Your task to perform on an android device: turn pop-ups off in chrome Image 0: 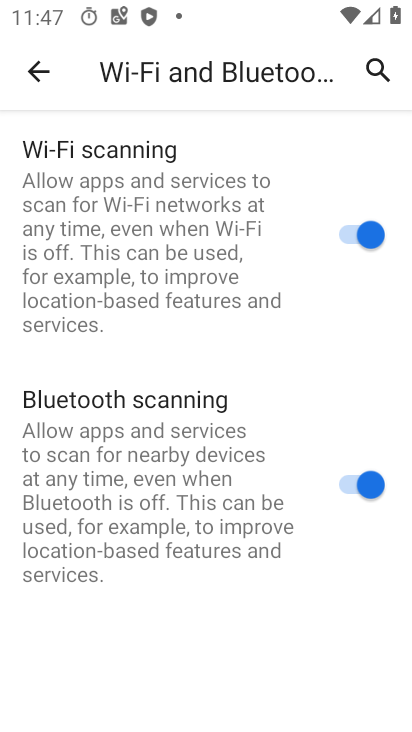
Step 0: press home button
Your task to perform on an android device: turn pop-ups off in chrome Image 1: 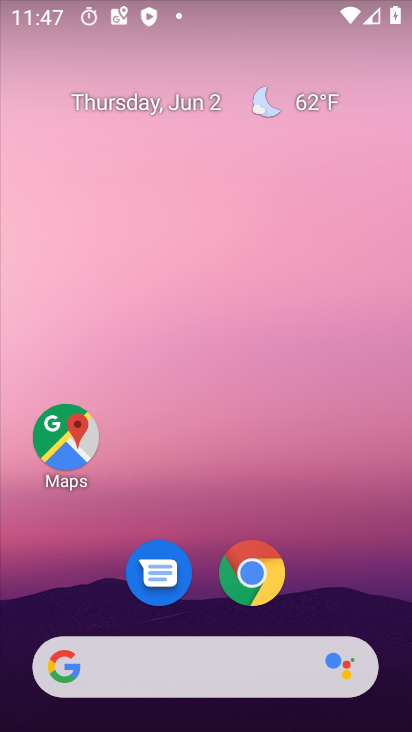
Step 1: drag from (235, 38) to (285, 3)
Your task to perform on an android device: turn pop-ups off in chrome Image 2: 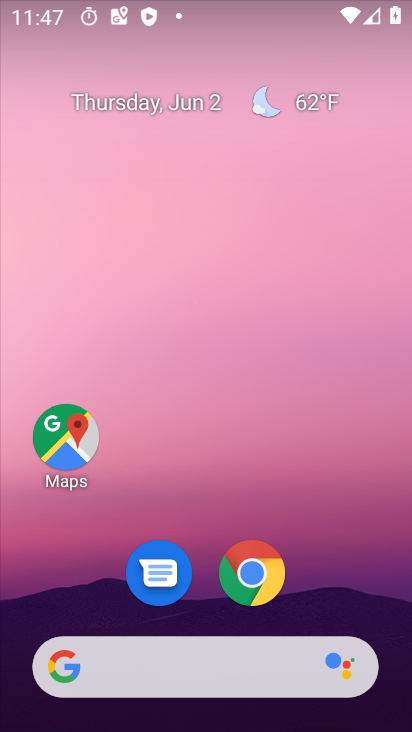
Step 2: drag from (316, 655) to (269, 118)
Your task to perform on an android device: turn pop-ups off in chrome Image 3: 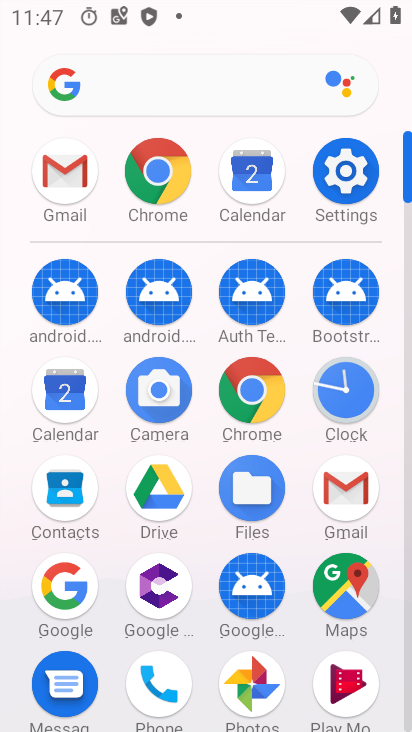
Step 3: click (154, 189)
Your task to perform on an android device: turn pop-ups off in chrome Image 4: 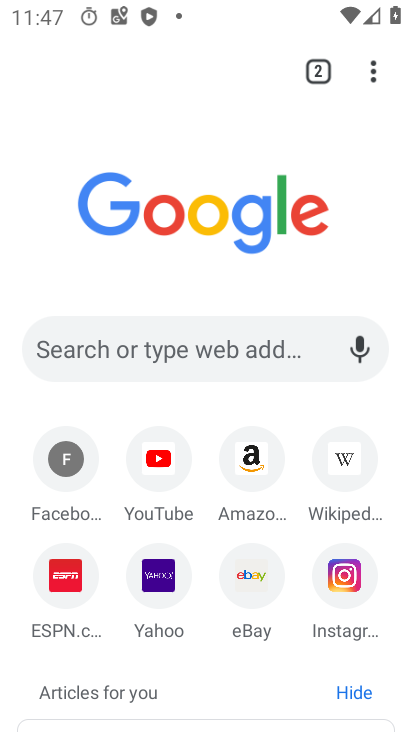
Step 4: drag from (377, 75) to (169, 611)
Your task to perform on an android device: turn pop-ups off in chrome Image 5: 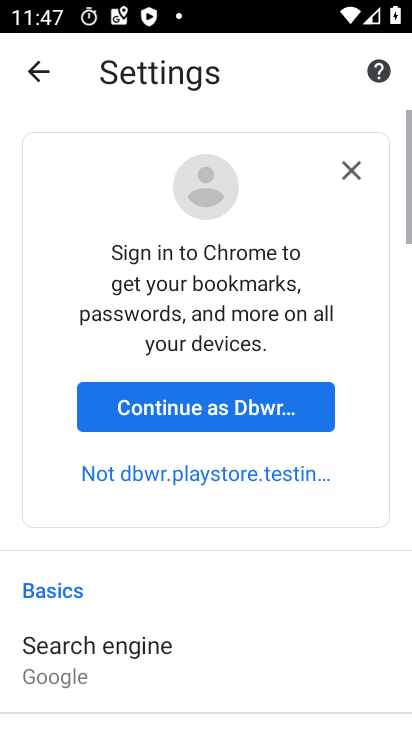
Step 5: drag from (186, 636) to (152, 6)
Your task to perform on an android device: turn pop-ups off in chrome Image 6: 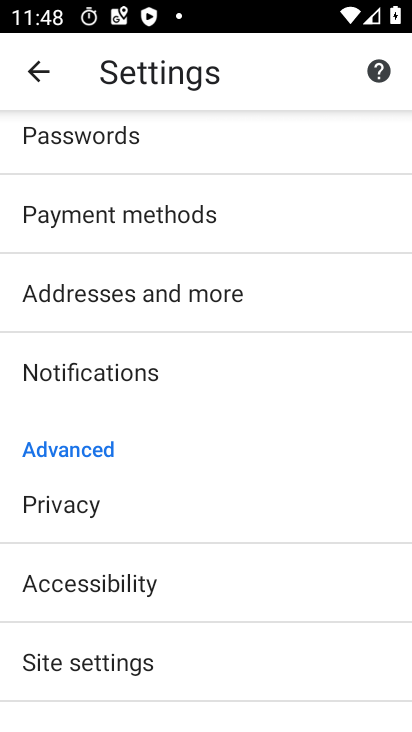
Step 6: drag from (217, 620) to (283, 138)
Your task to perform on an android device: turn pop-ups off in chrome Image 7: 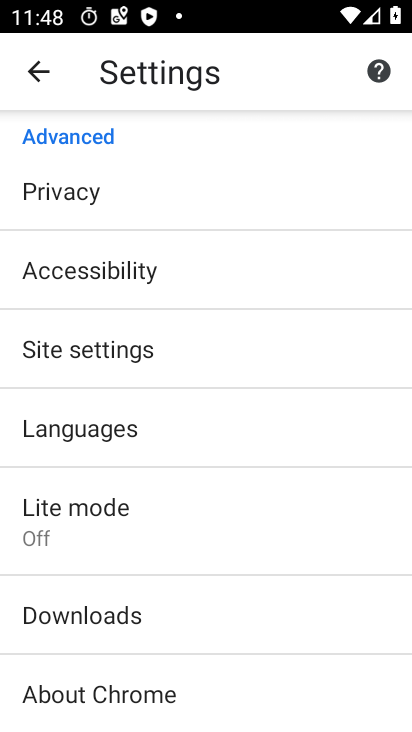
Step 7: click (195, 378)
Your task to perform on an android device: turn pop-ups off in chrome Image 8: 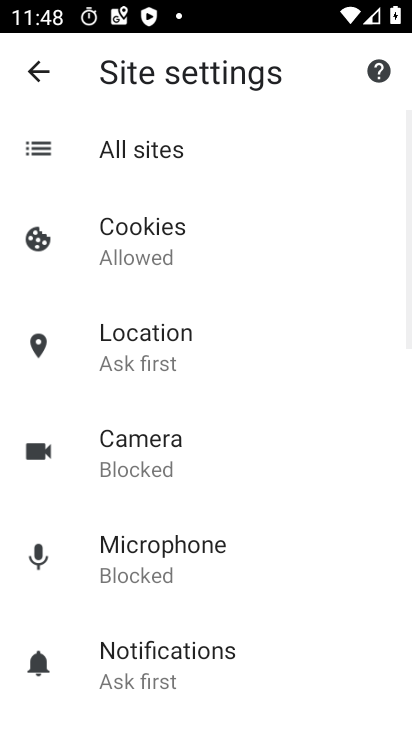
Step 8: drag from (199, 528) to (245, 163)
Your task to perform on an android device: turn pop-ups off in chrome Image 9: 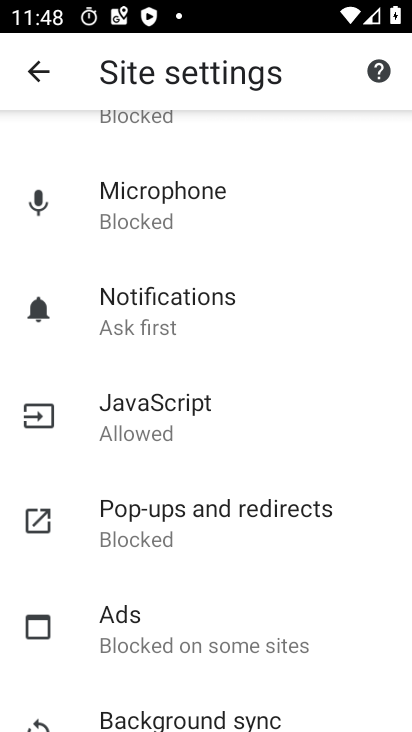
Step 9: drag from (204, 652) to (207, 290)
Your task to perform on an android device: turn pop-ups off in chrome Image 10: 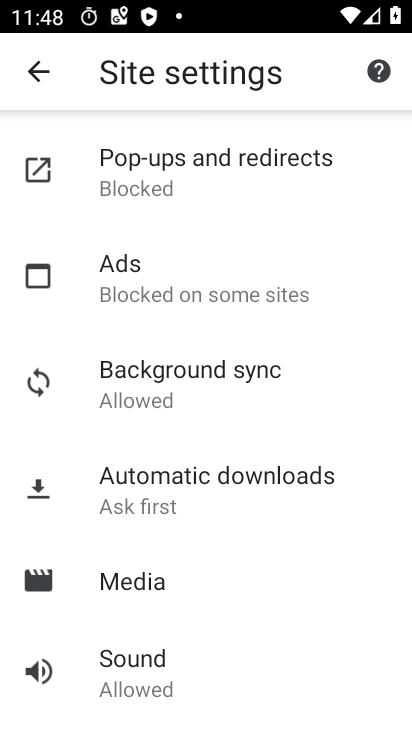
Step 10: drag from (210, 630) to (178, 652)
Your task to perform on an android device: turn pop-ups off in chrome Image 11: 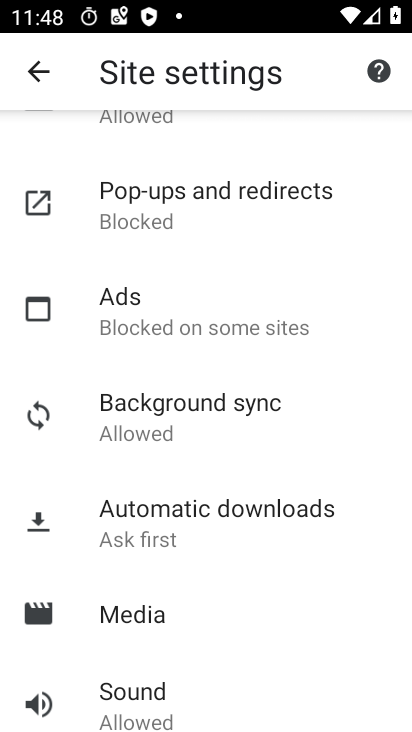
Step 11: click (244, 222)
Your task to perform on an android device: turn pop-ups off in chrome Image 12: 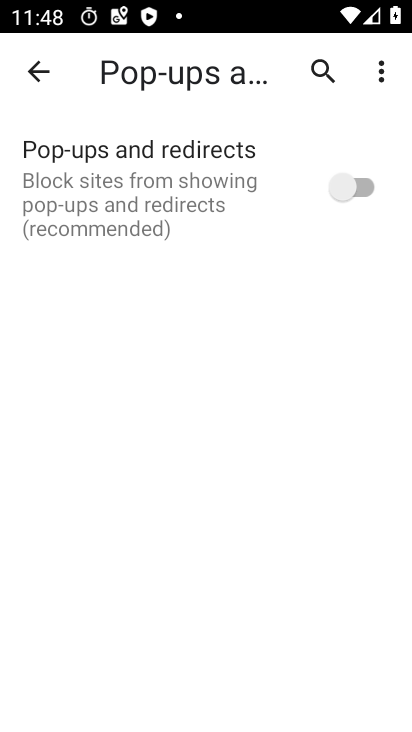
Step 12: task complete